Your task to perform on an android device: turn off priority inbox in the gmail app Image 0: 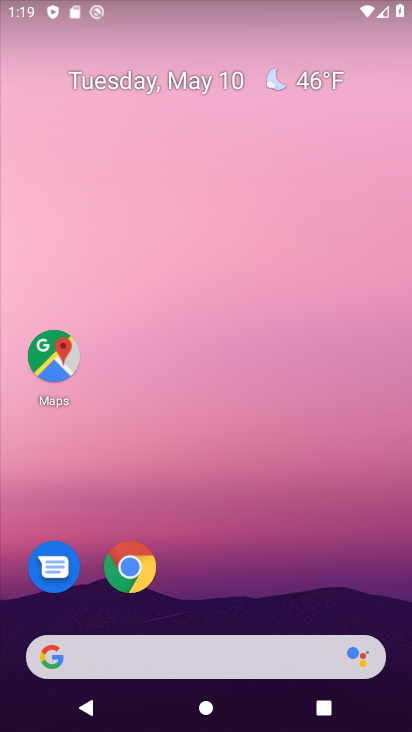
Step 0: drag from (187, 645) to (273, 210)
Your task to perform on an android device: turn off priority inbox in the gmail app Image 1: 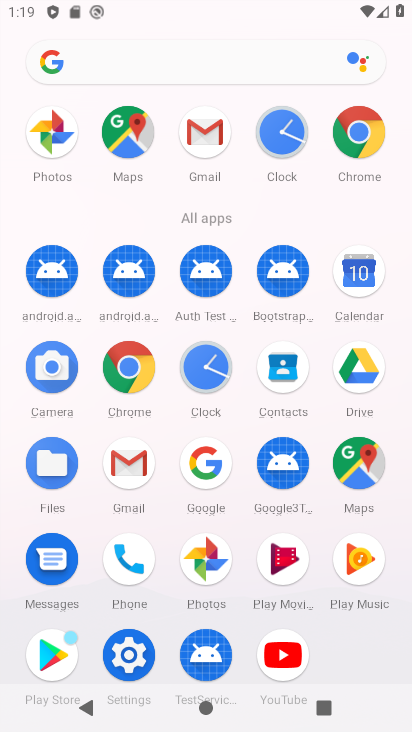
Step 1: click (126, 473)
Your task to perform on an android device: turn off priority inbox in the gmail app Image 2: 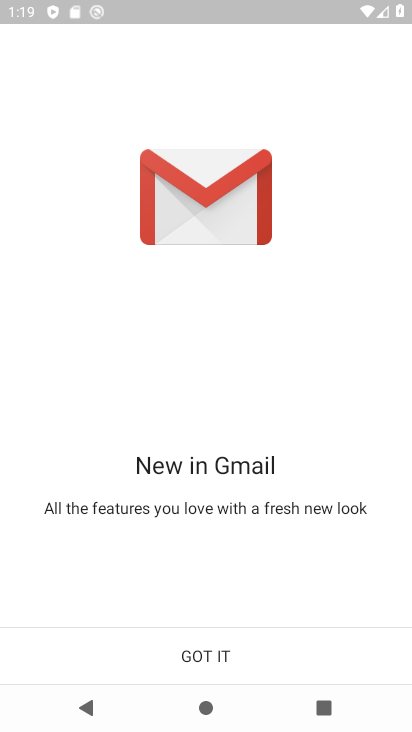
Step 2: click (214, 654)
Your task to perform on an android device: turn off priority inbox in the gmail app Image 3: 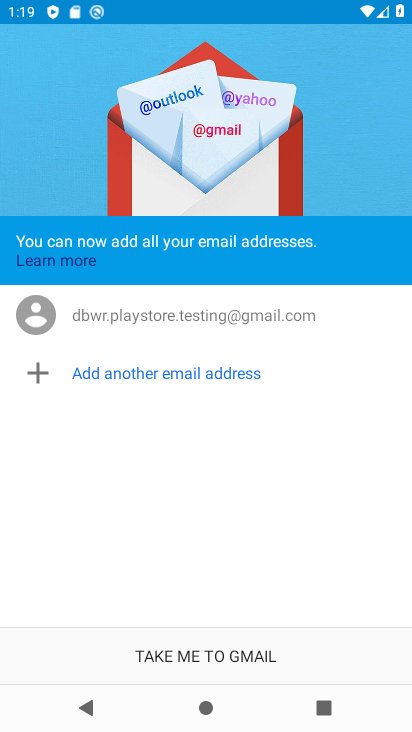
Step 3: click (214, 653)
Your task to perform on an android device: turn off priority inbox in the gmail app Image 4: 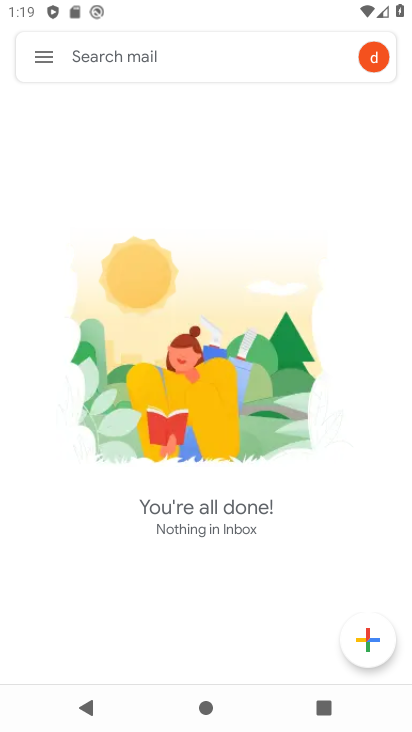
Step 4: click (51, 55)
Your task to perform on an android device: turn off priority inbox in the gmail app Image 5: 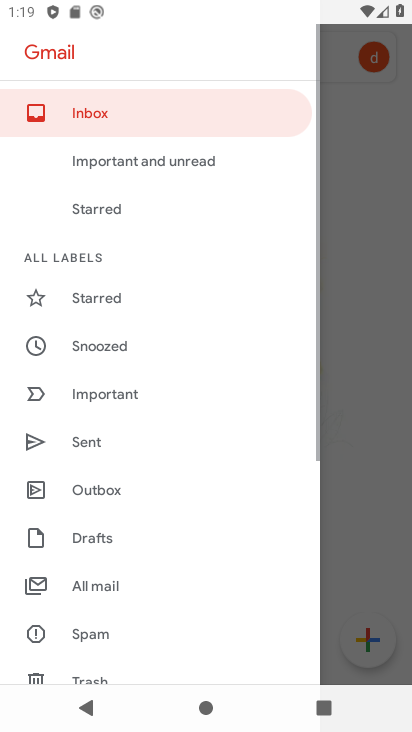
Step 5: drag from (102, 624) to (202, 288)
Your task to perform on an android device: turn off priority inbox in the gmail app Image 6: 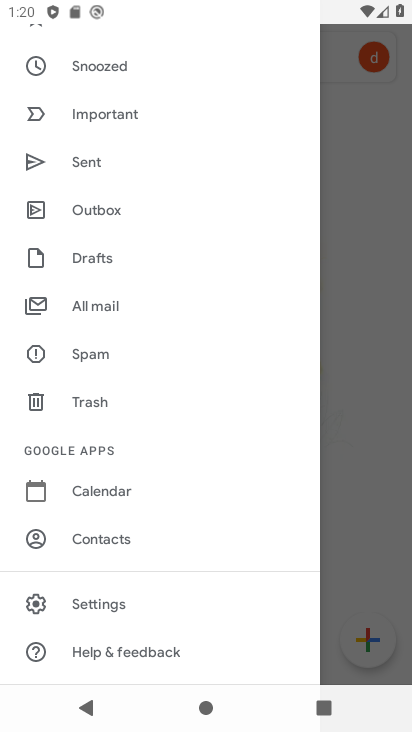
Step 6: click (151, 610)
Your task to perform on an android device: turn off priority inbox in the gmail app Image 7: 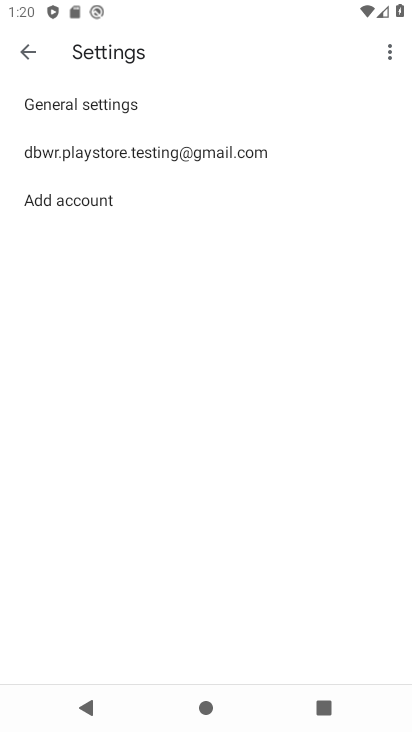
Step 7: click (219, 150)
Your task to perform on an android device: turn off priority inbox in the gmail app Image 8: 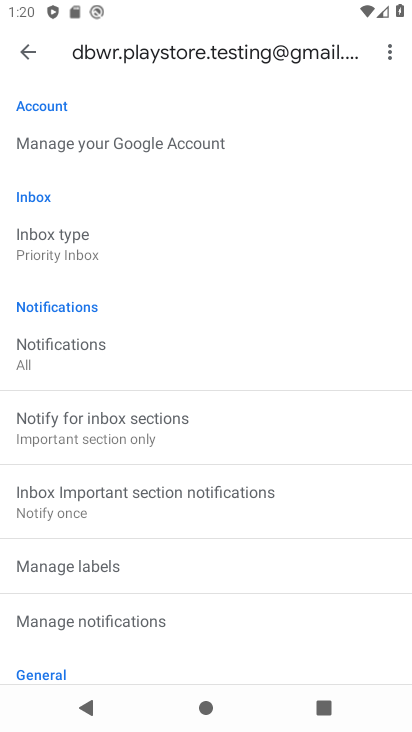
Step 8: click (119, 254)
Your task to perform on an android device: turn off priority inbox in the gmail app Image 9: 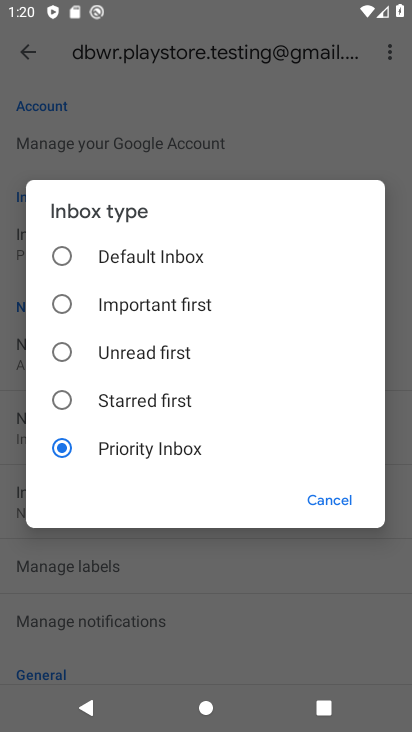
Step 9: click (170, 260)
Your task to perform on an android device: turn off priority inbox in the gmail app Image 10: 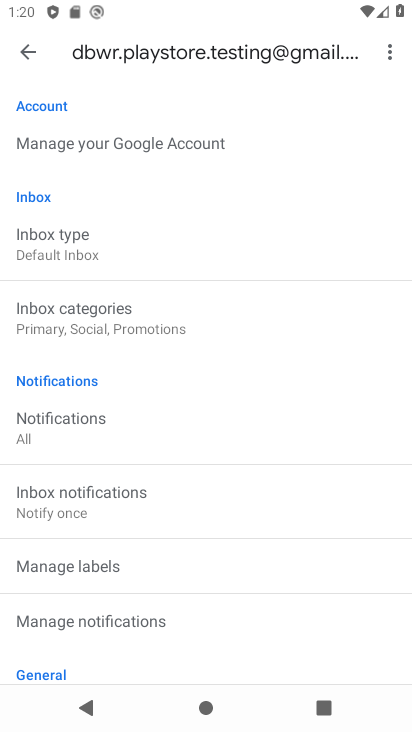
Step 10: task complete